Your task to perform on an android device: toggle improve location accuracy Image 0: 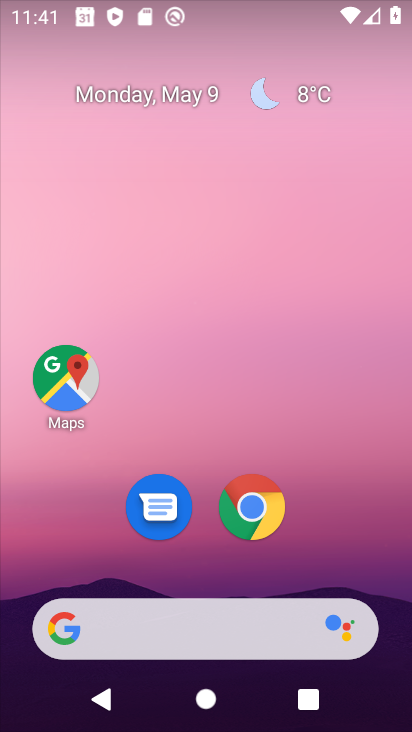
Step 0: drag from (331, 539) to (300, 152)
Your task to perform on an android device: toggle improve location accuracy Image 1: 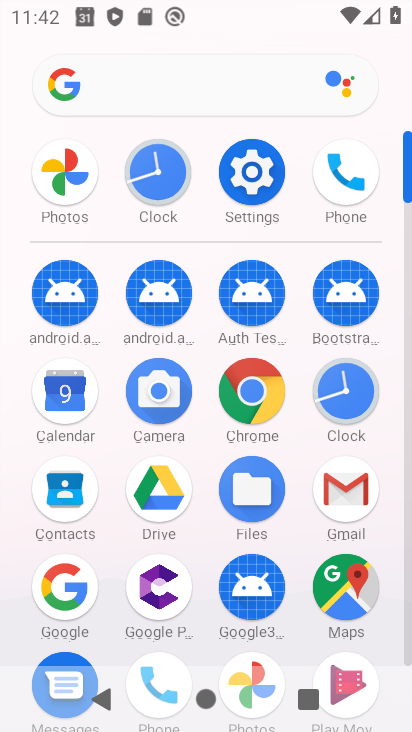
Step 1: click (244, 182)
Your task to perform on an android device: toggle improve location accuracy Image 2: 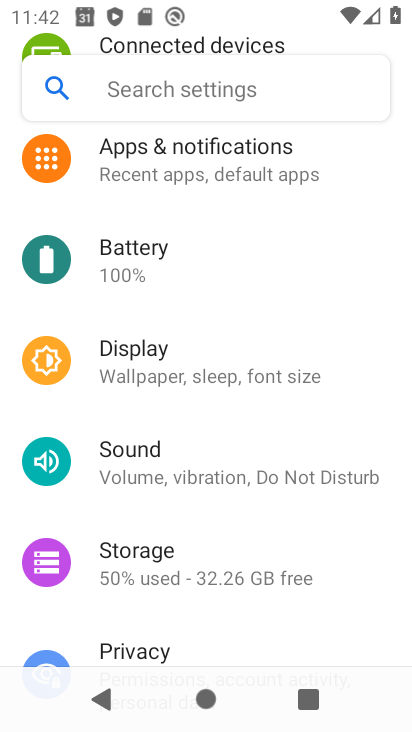
Step 2: drag from (209, 521) to (189, 295)
Your task to perform on an android device: toggle improve location accuracy Image 3: 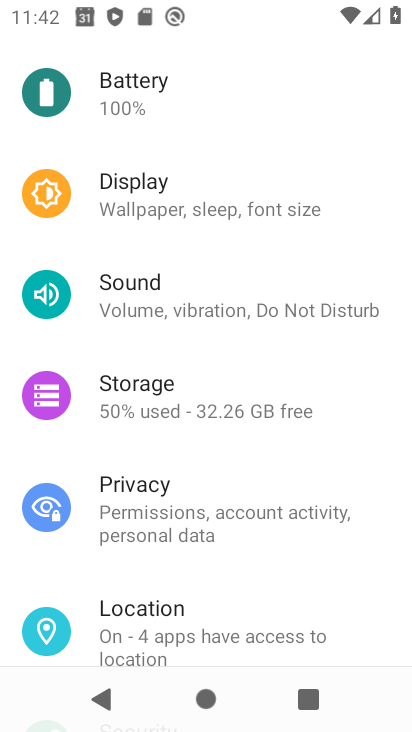
Step 3: click (144, 620)
Your task to perform on an android device: toggle improve location accuracy Image 4: 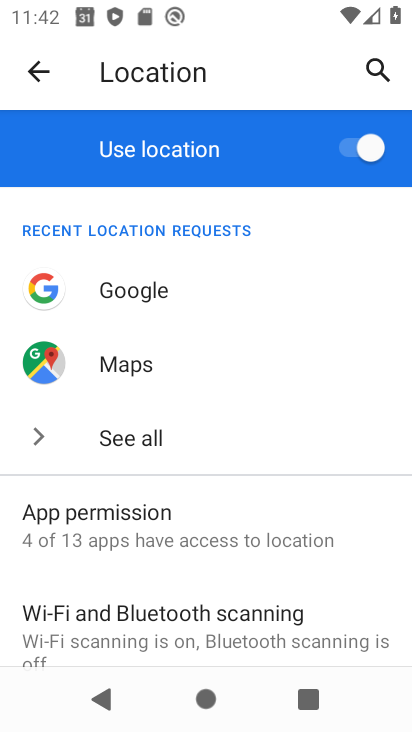
Step 4: drag from (214, 563) to (217, 278)
Your task to perform on an android device: toggle improve location accuracy Image 5: 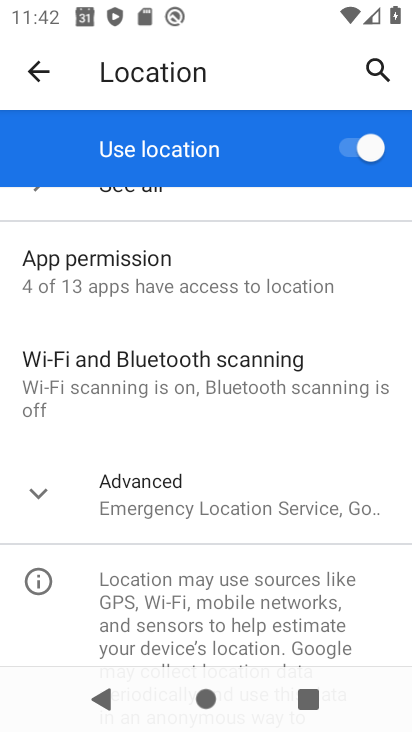
Step 5: click (229, 500)
Your task to perform on an android device: toggle improve location accuracy Image 6: 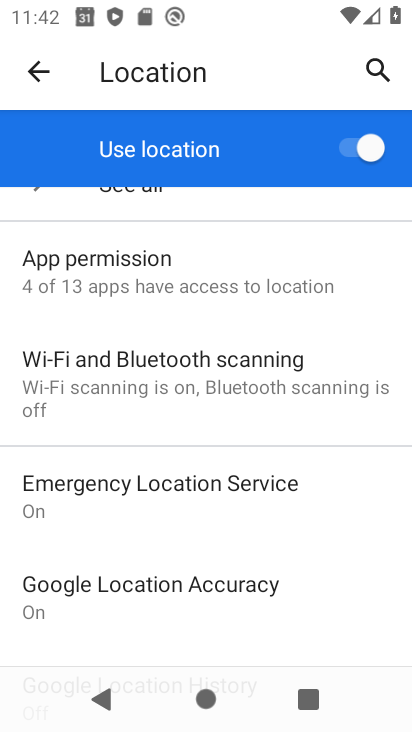
Step 6: drag from (170, 531) to (168, 336)
Your task to perform on an android device: toggle improve location accuracy Image 7: 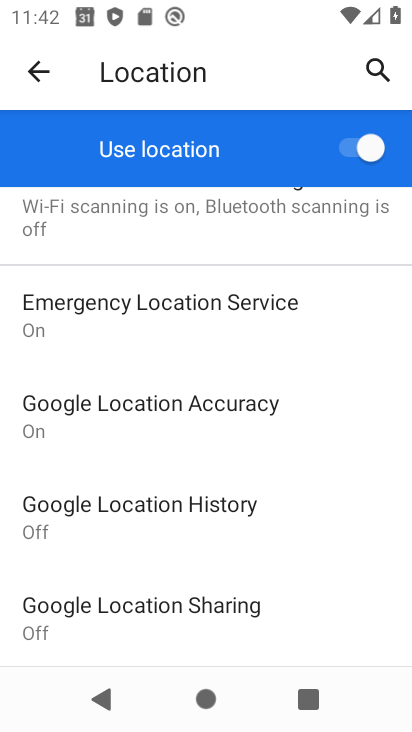
Step 7: click (156, 406)
Your task to perform on an android device: toggle improve location accuracy Image 8: 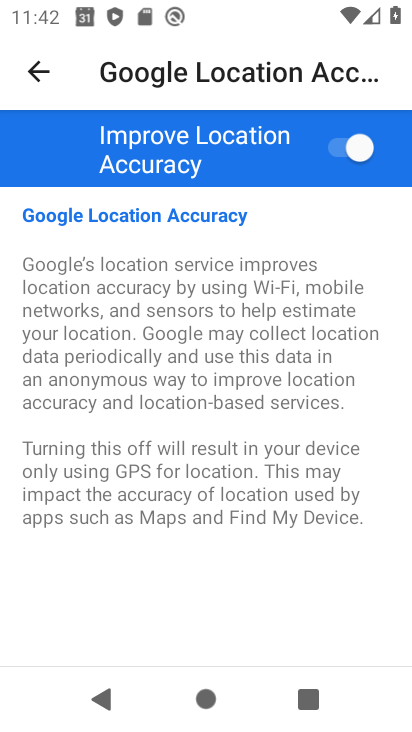
Step 8: click (342, 144)
Your task to perform on an android device: toggle improve location accuracy Image 9: 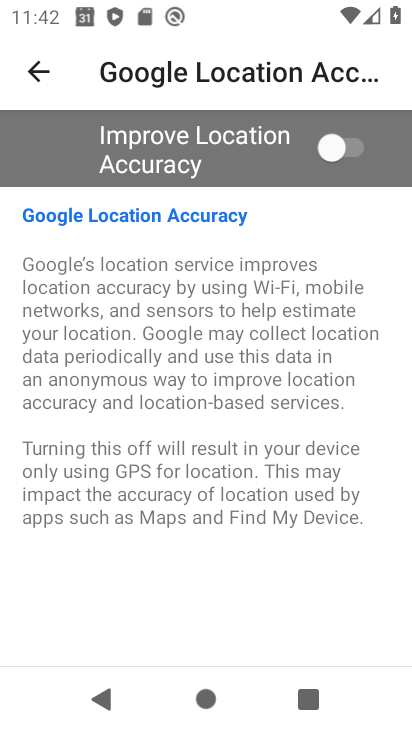
Step 9: task complete